Your task to perform on an android device: open sync settings in chrome Image 0: 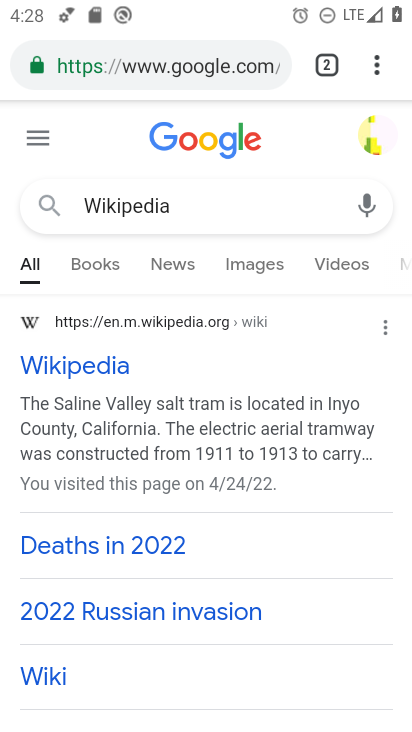
Step 0: press back button
Your task to perform on an android device: open sync settings in chrome Image 1: 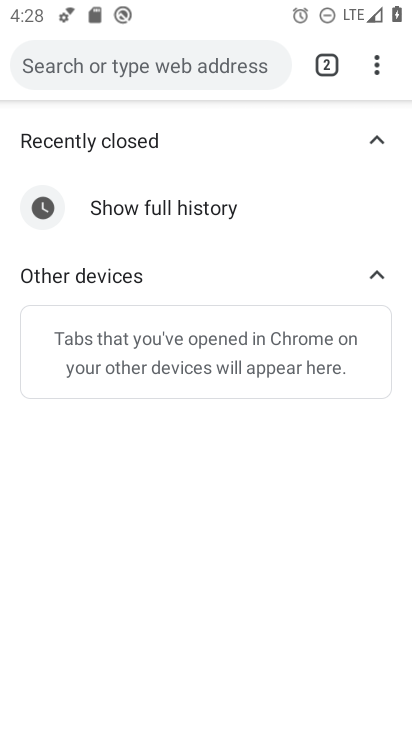
Step 1: click (377, 64)
Your task to perform on an android device: open sync settings in chrome Image 2: 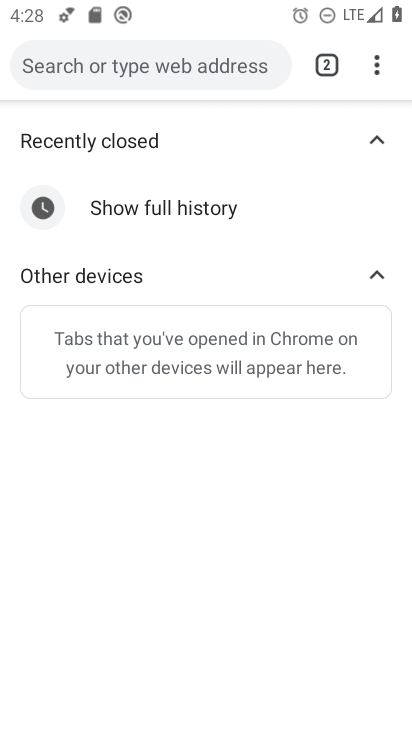
Step 2: click (378, 59)
Your task to perform on an android device: open sync settings in chrome Image 3: 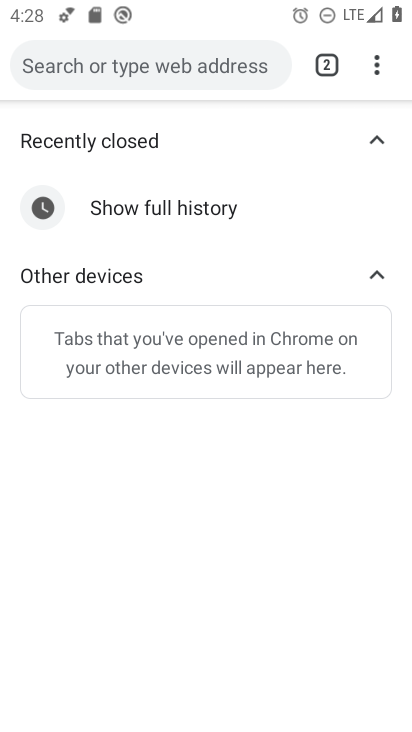
Step 3: click (377, 61)
Your task to perform on an android device: open sync settings in chrome Image 4: 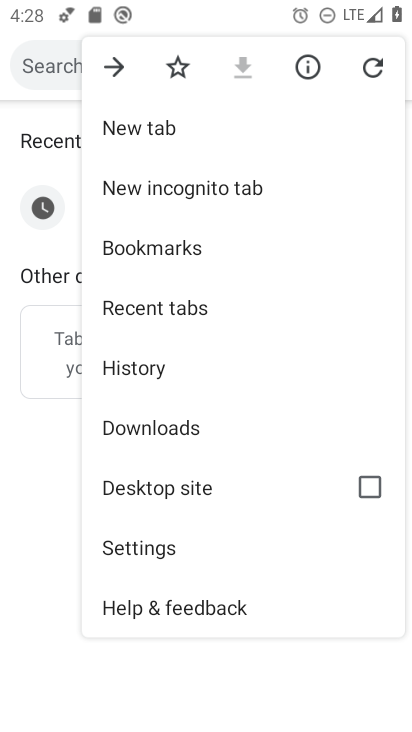
Step 4: click (106, 544)
Your task to perform on an android device: open sync settings in chrome Image 5: 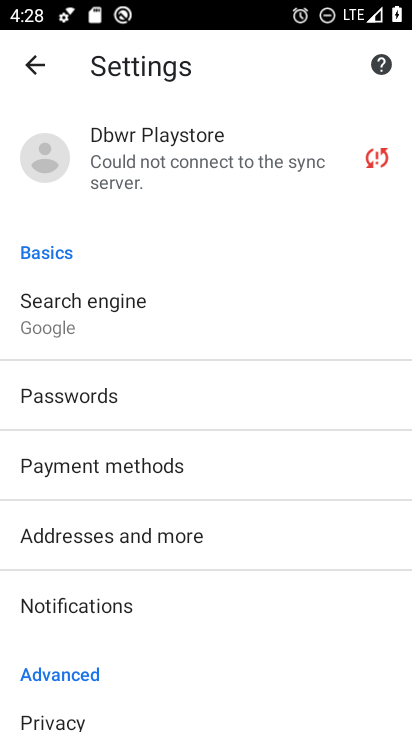
Step 5: drag from (268, 606) to (249, 335)
Your task to perform on an android device: open sync settings in chrome Image 6: 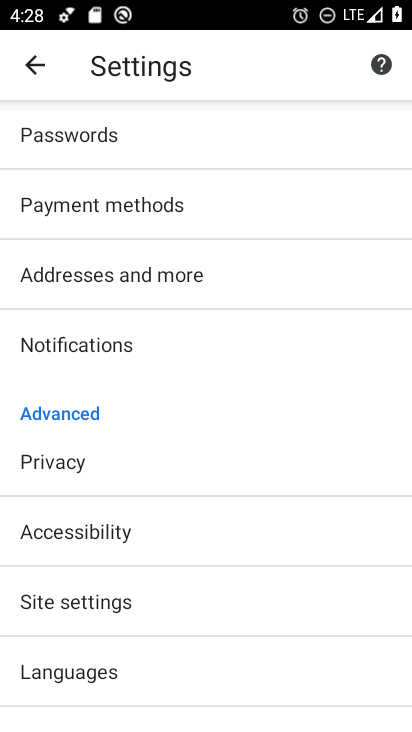
Step 6: drag from (220, 610) to (189, 354)
Your task to perform on an android device: open sync settings in chrome Image 7: 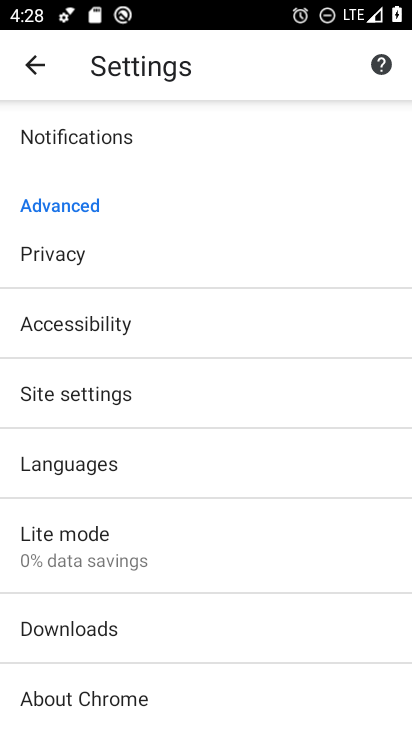
Step 7: click (101, 396)
Your task to perform on an android device: open sync settings in chrome Image 8: 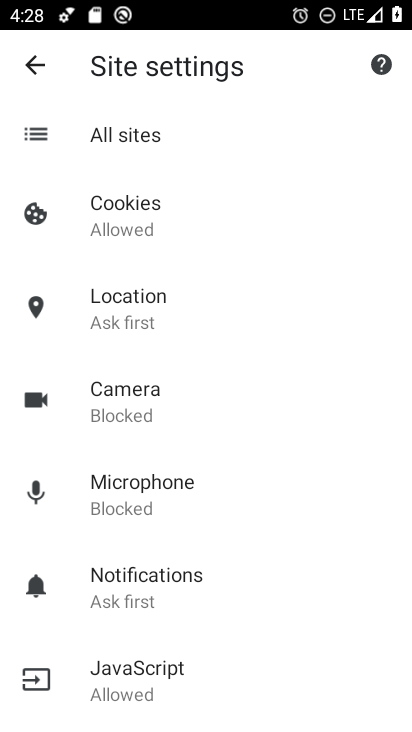
Step 8: drag from (247, 558) to (245, 368)
Your task to perform on an android device: open sync settings in chrome Image 9: 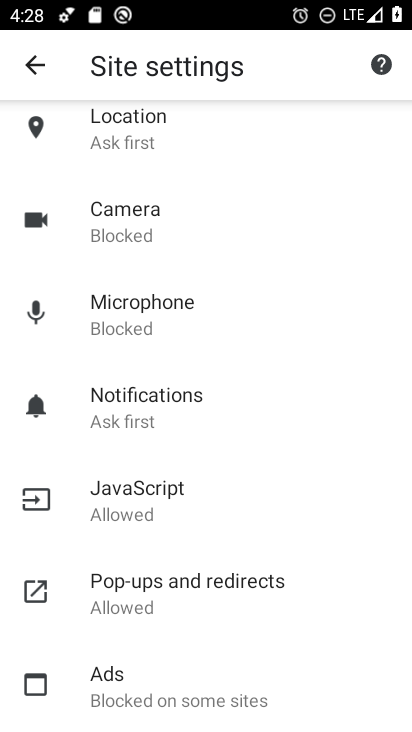
Step 9: drag from (242, 340) to (235, 509)
Your task to perform on an android device: open sync settings in chrome Image 10: 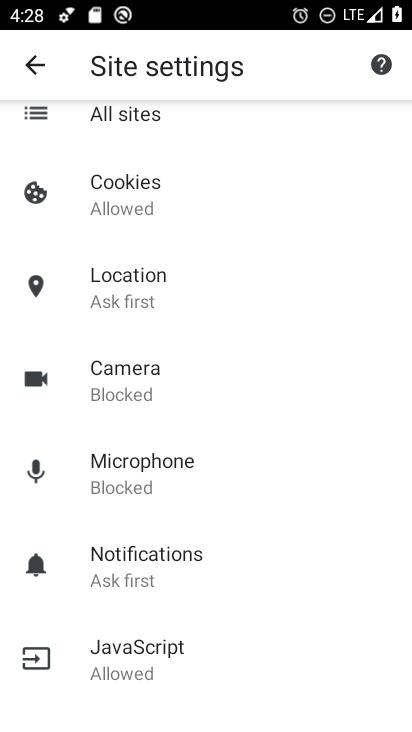
Step 10: click (228, 247)
Your task to perform on an android device: open sync settings in chrome Image 11: 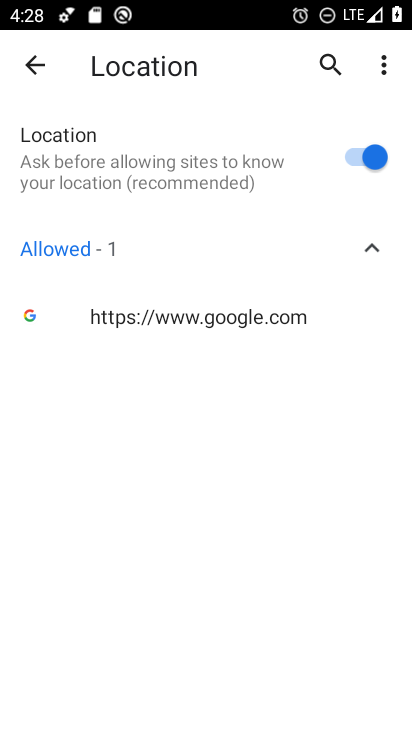
Step 11: click (39, 60)
Your task to perform on an android device: open sync settings in chrome Image 12: 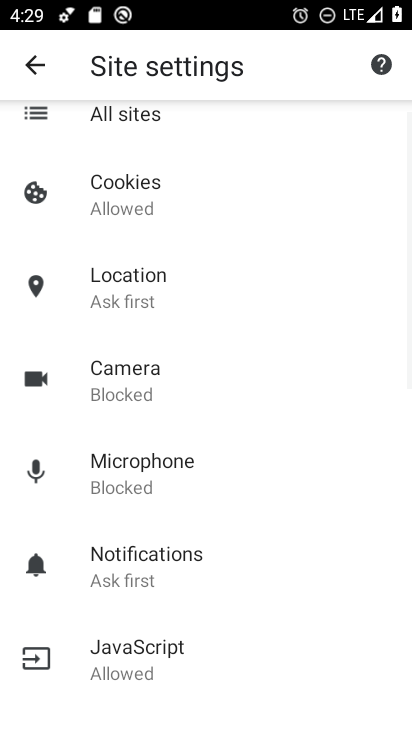
Step 12: drag from (280, 654) to (281, 375)
Your task to perform on an android device: open sync settings in chrome Image 13: 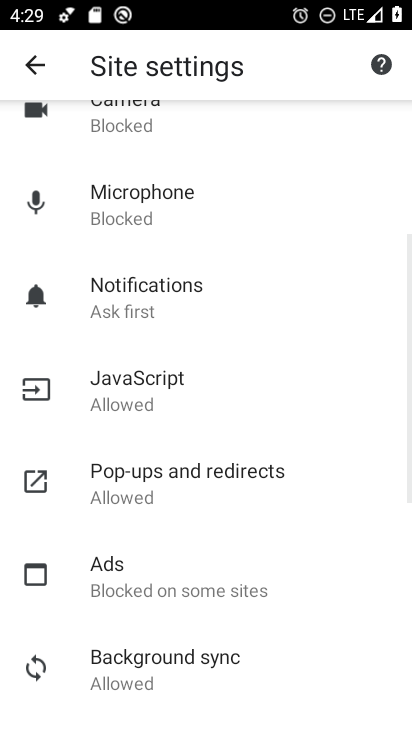
Step 13: click (193, 662)
Your task to perform on an android device: open sync settings in chrome Image 14: 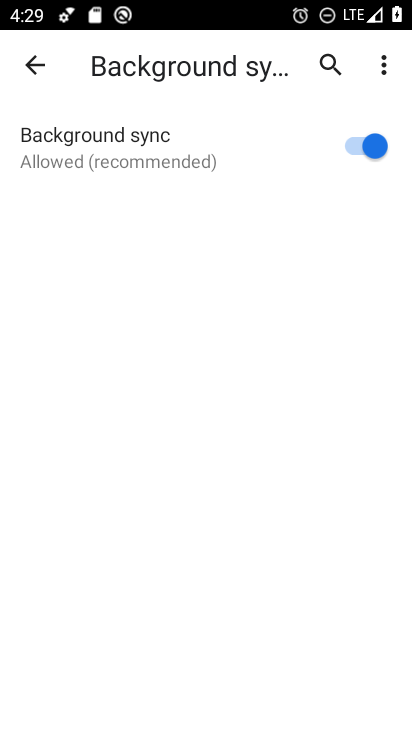
Step 14: task complete